Your task to perform on an android device: turn on showing notifications on the lock screen Image 0: 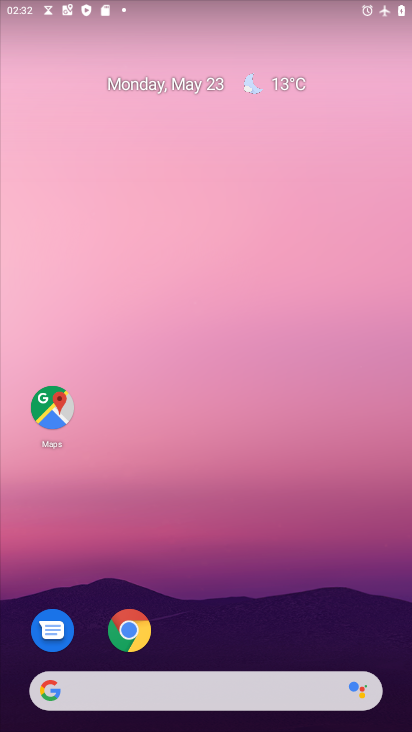
Step 0: drag from (282, 469) to (235, 12)
Your task to perform on an android device: turn on showing notifications on the lock screen Image 1: 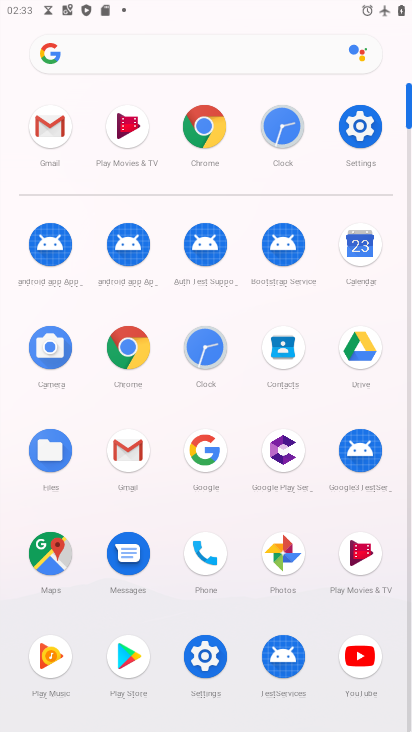
Step 1: click (342, 122)
Your task to perform on an android device: turn on showing notifications on the lock screen Image 2: 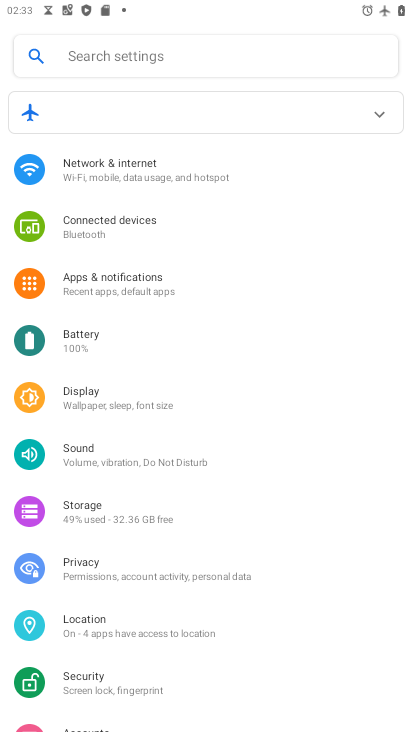
Step 2: click (212, 293)
Your task to perform on an android device: turn on showing notifications on the lock screen Image 3: 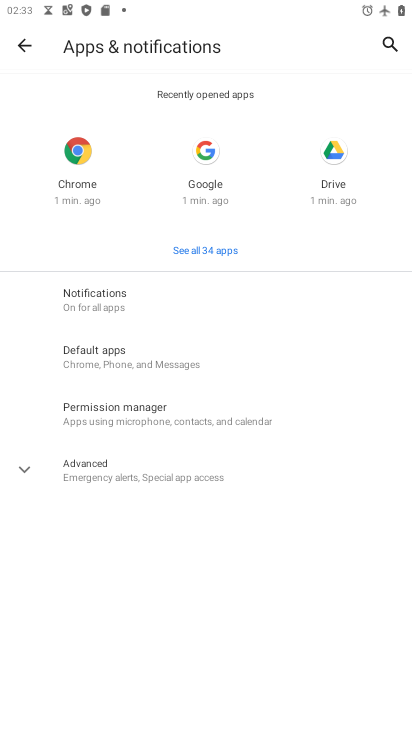
Step 3: click (203, 298)
Your task to perform on an android device: turn on showing notifications on the lock screen Image 4: 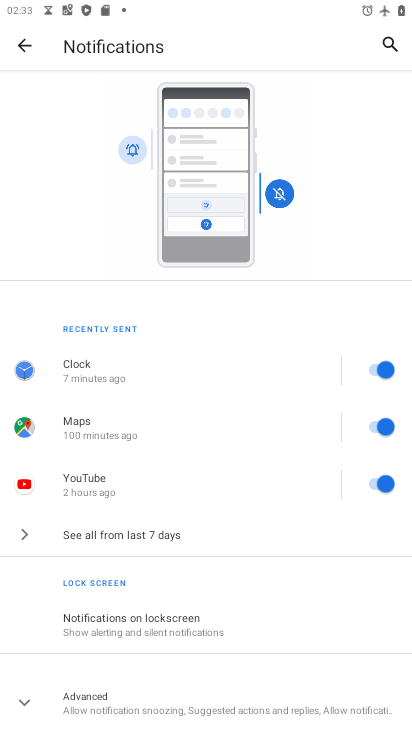
Step 4: click (197, 628)
Your task to perform on an android device: turn on showing notifications on the lock screen Image 5: 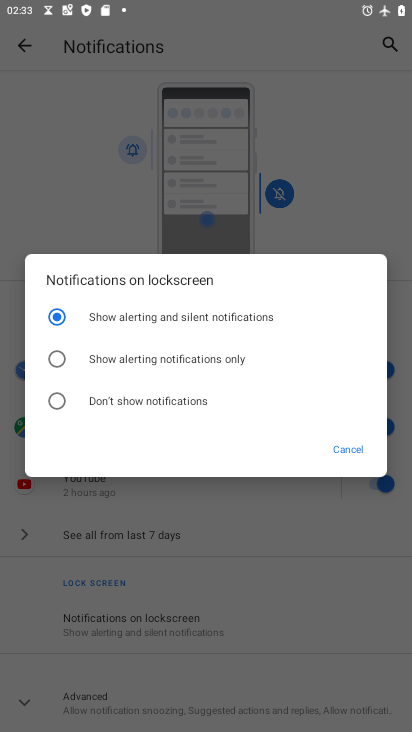
Step 5: task complete